Your task to perform on an android device: toggle airplane mode Image 0: 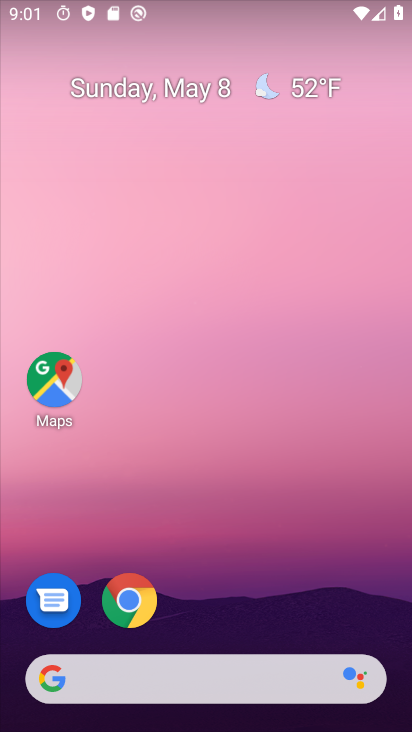
Step 0: drag from (217, 623) to (222, 79)
Your task to perform on an android device: toggle airplane mode Image 1: 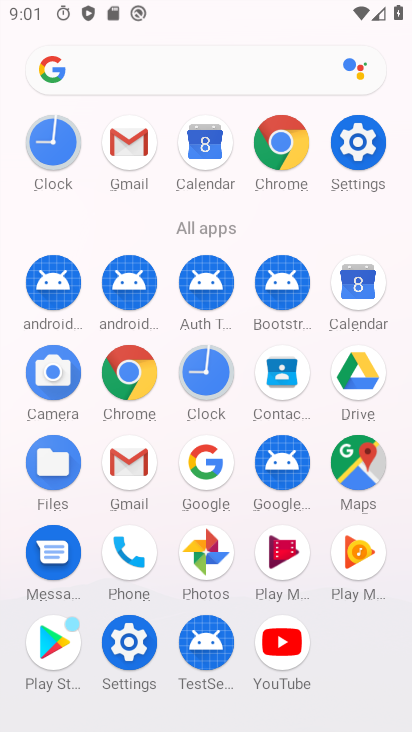
Step 1: click (361, 154)
Your task to perform on an android device: toggle airplane mode Image 2: 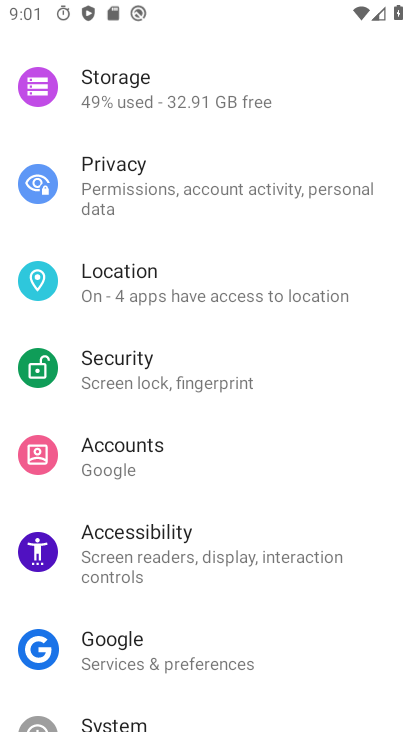
Step 2: drag from (245, 147) to (170, 630)
Your task to perform on an android device: toggle airplane mode Image 3: 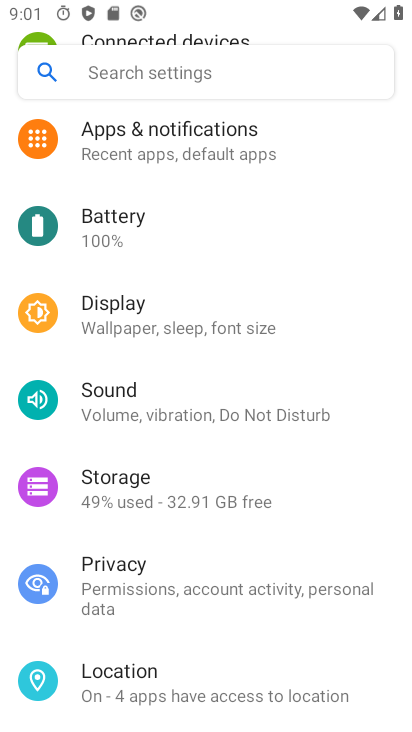
Step 3: drag from (160, 209) to (100, 468)
Your task to perform on an android device: toggle airplane mode Image 4: 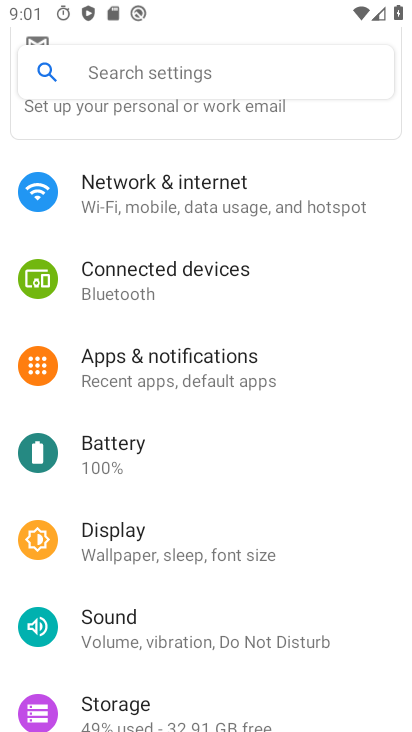
Step 4: click (149, 211)
Your task to perform on an android device: toggle airplane mode Image 5: 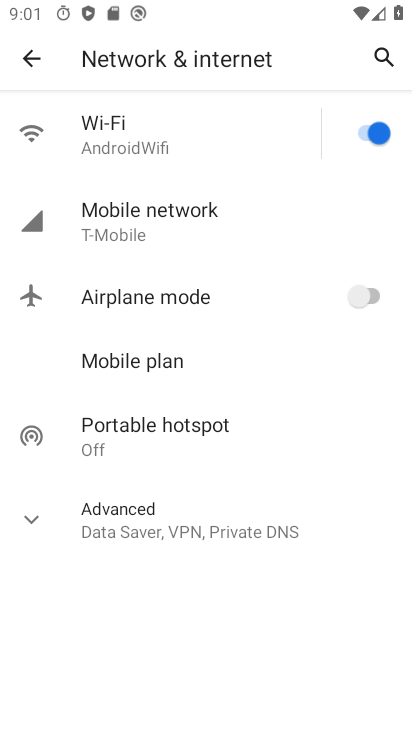
Step 5: click (367, 300)
Your task to perform on an android device: toggle airplane mode Image 6: 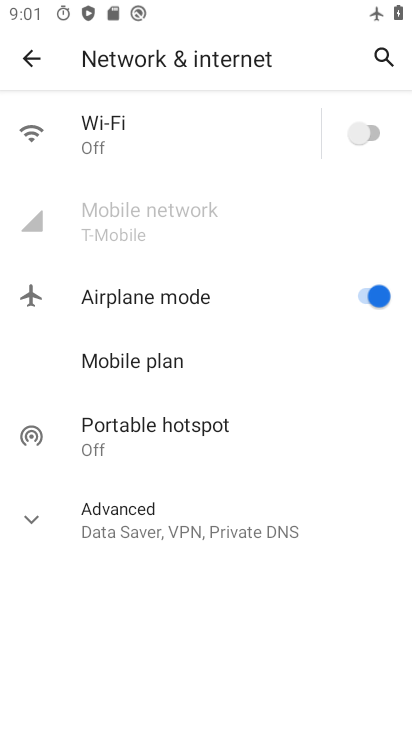
Step 6: task complete